Your task to perform on an android device: turn off airplane mode Image 0: 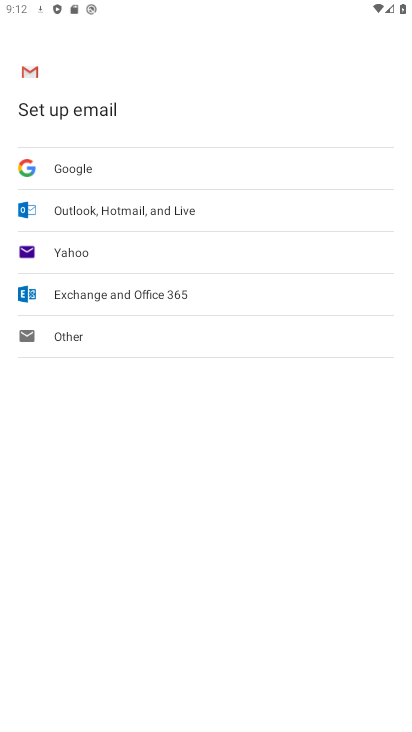
Step 0: press home button
Your task to perform on an android device: turn off airplane mode Image 1: 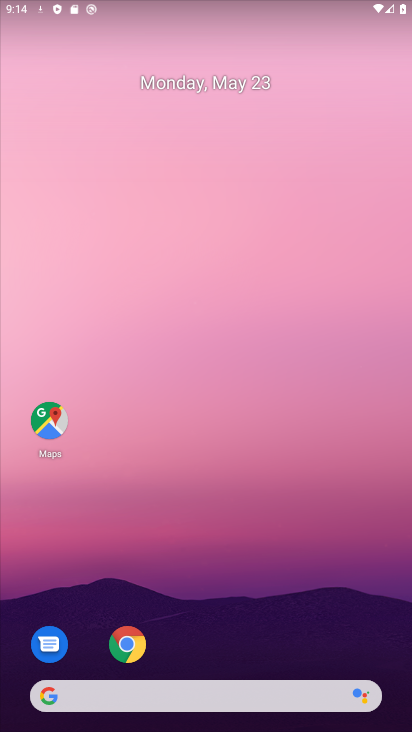
Step 1: drag from (194, 706) to (152, 226)
Your task to perform on an android device: turn off airplane mode Image 2: 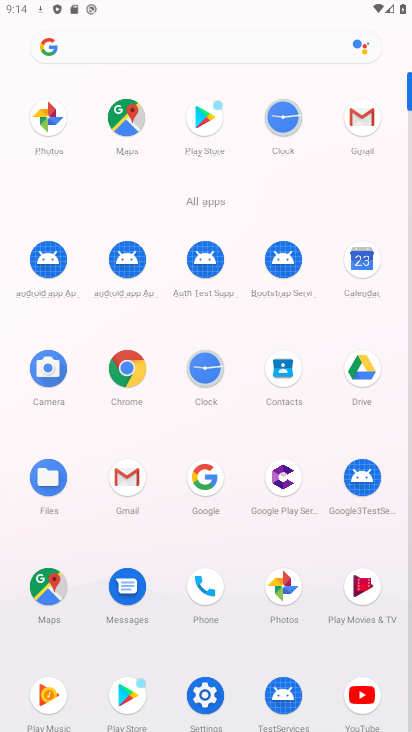
Step 2: click (213, 687)
Your task to perform on an android device: turn off airplane mode Image 3: 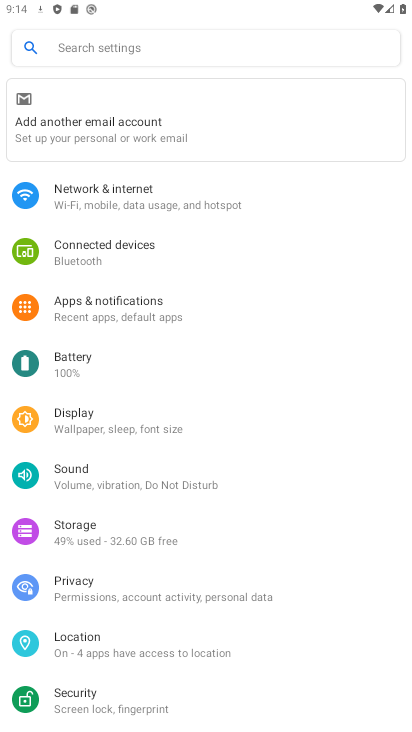
Step 3: click (136, 177)
Your task to perform on an android device: turn off airplane mode Image 4: 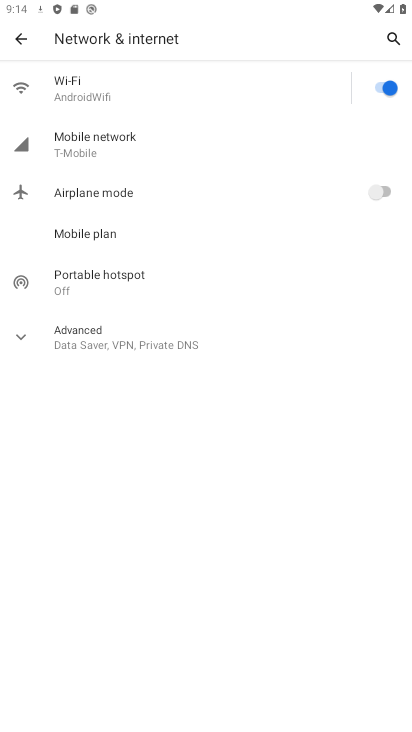
Step 4: click (336, 196)
Your task to perform on an android device: turn off airplane mode Image 5: 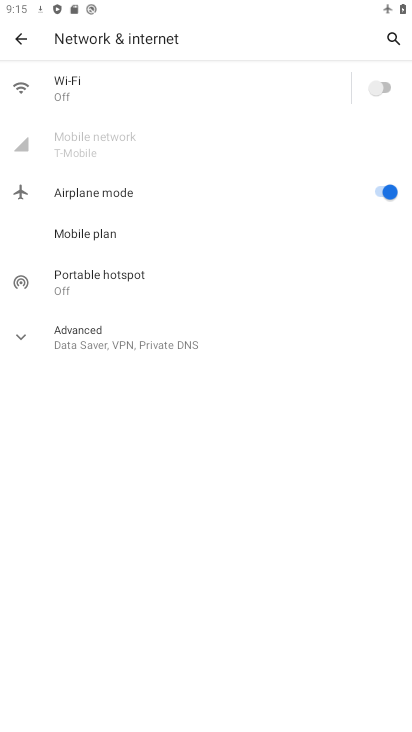
Step 5: click (382, 195)
Your task to perform on an android device: turn off airplane mode Image 6: 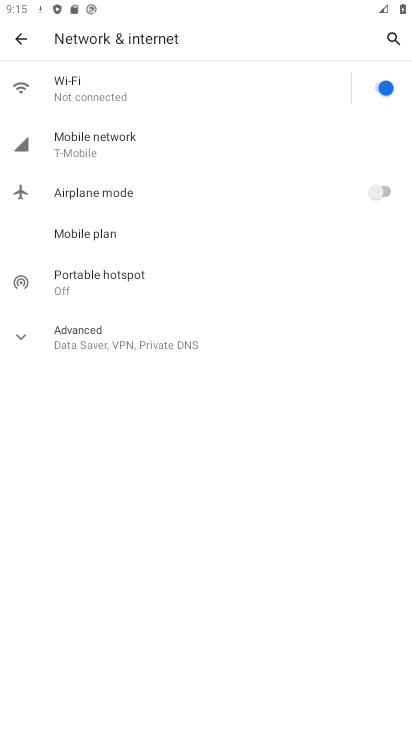
Step 6: task complete